Your task to perform on an android device: change your default location settings in chrome Image 0: 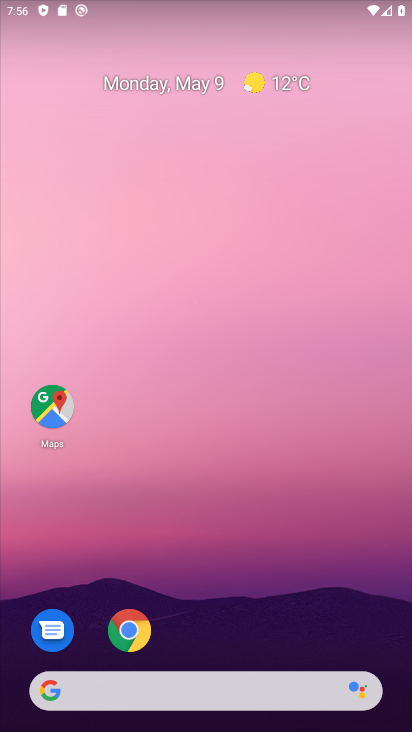
Step 0: click (129, 631)
Your task to perform on an android device: change your default location settings in chrome Image 1: 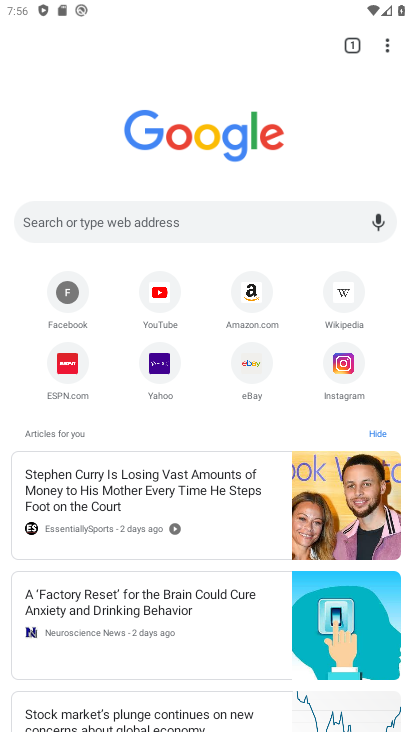
Step 1: click (387, 42)
Your task to perform on an android device: change your default location settings in chrome Image 2: 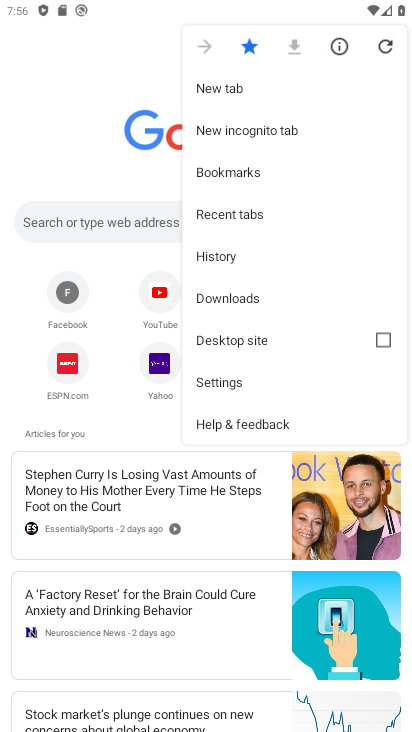
Step 2: click (211, 388)
Your task to perform on an android device: change your default location settings in chrome Image 3: 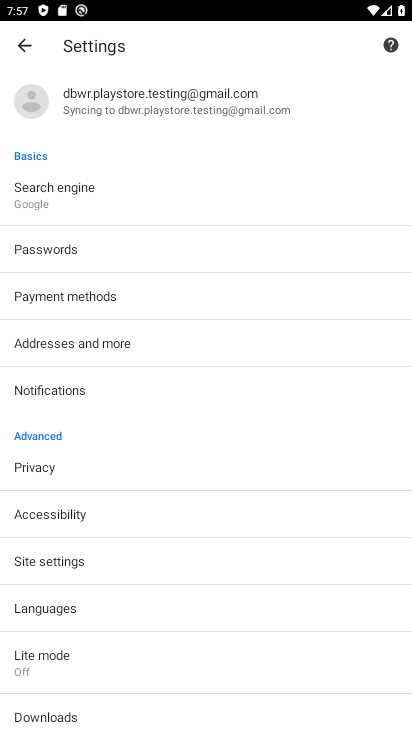
Step 3: drag from (43, 709) to (94, 382)
Your task to perform on an android device: change your default location settings in chrome Image 4: 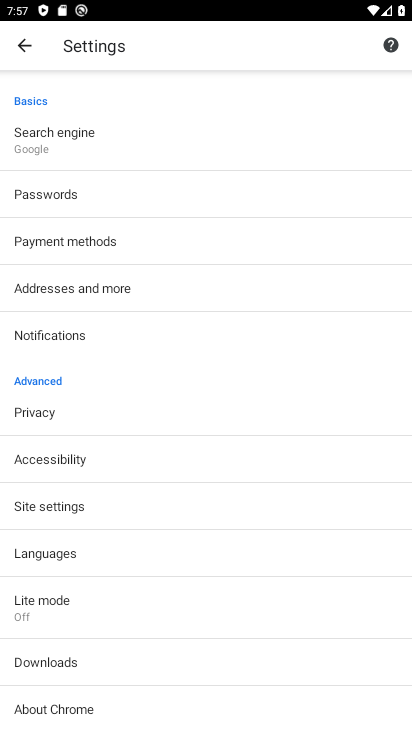
Step 4: click (27, 503)
Your task to perform on an android device: change your default location settings in chrome Image 5: 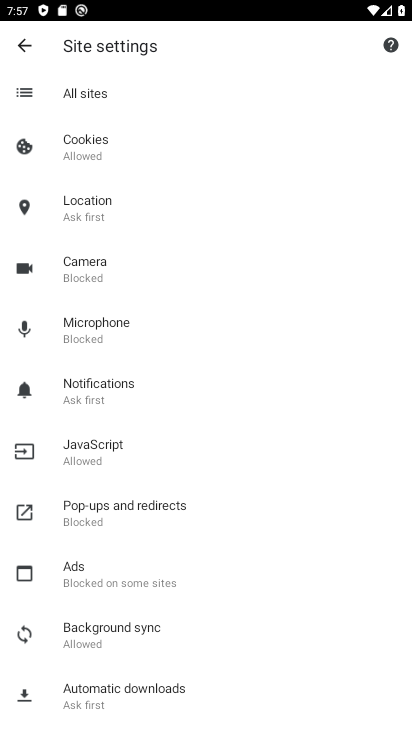
Step 5: click (92, 206)
Your task to perform on an android device: change your default location settings in chrome Image 6: 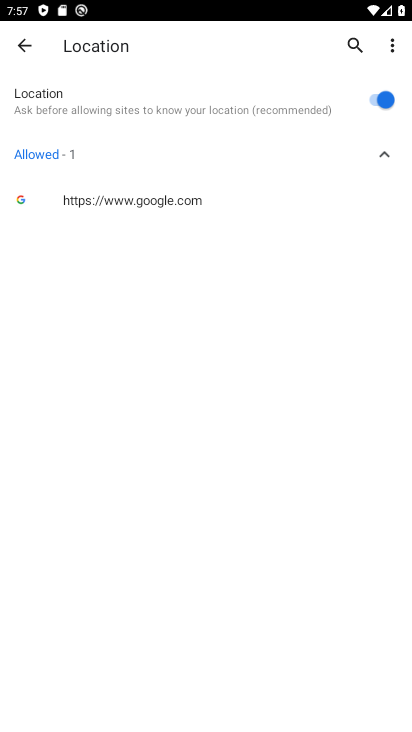
Step 6: click (374, 100)
Your task to perform on an android device: change your default location settings in chrome Image 7: 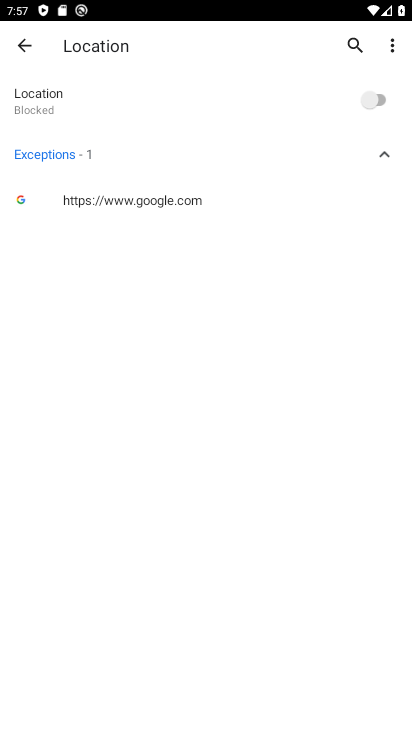
Step 7: task complete